Your task to perform on an android device: open a bookmark in the chrome app Image 0: 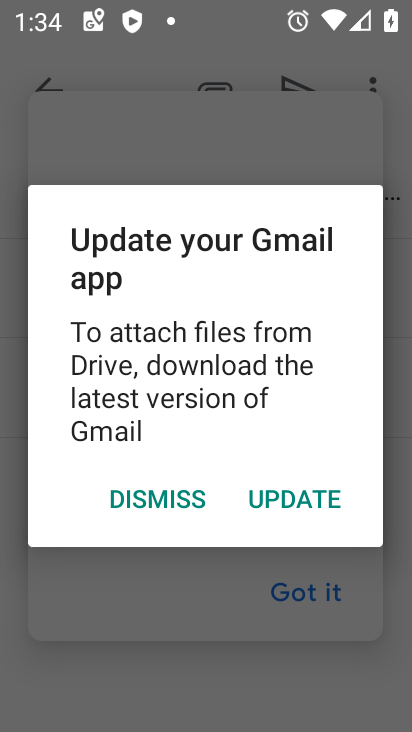
Step 0: press home button
Your task to perform on an android device: open a bookmark in the chrome app Image 1: 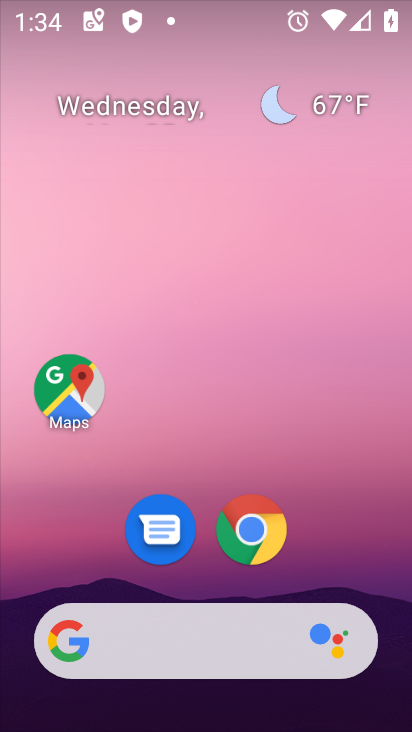
Step 1: click (251, 530)
Your task to perform on an android device: open a bookmark in the chrome app Image 2: 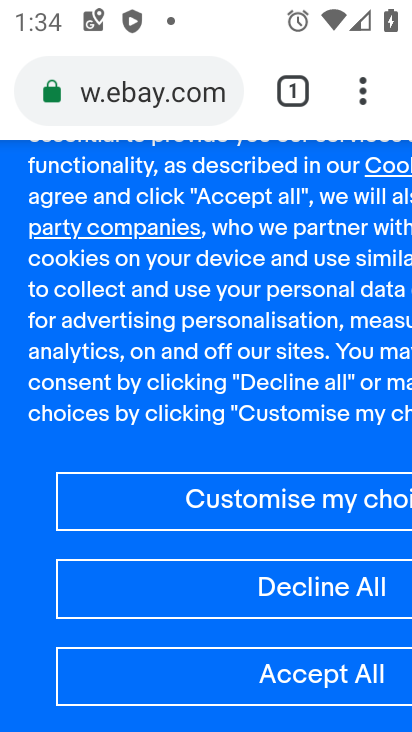
Step 2: click (363, 94)
Your task to perform on an android device: open a bookmark in the chrome app Image 3: 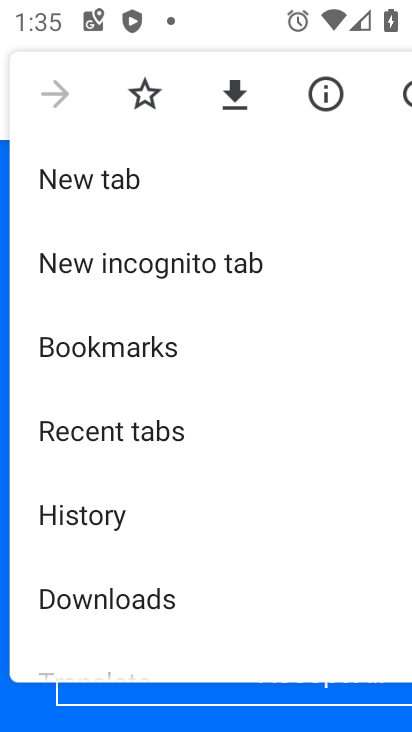
Step 3: click (153, 350)
Your task to perform on an android device: open a bookmark in the chrome app Image 4: 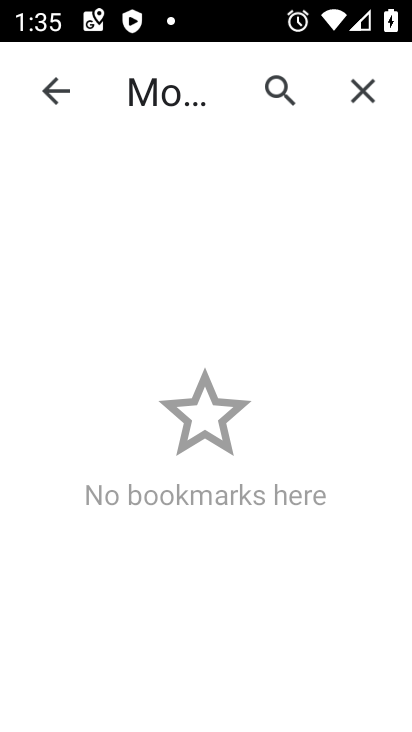
Step 4: task complete